Your task to perform on an android device: Open Youtube and go to the subscriptions tab Image 0: 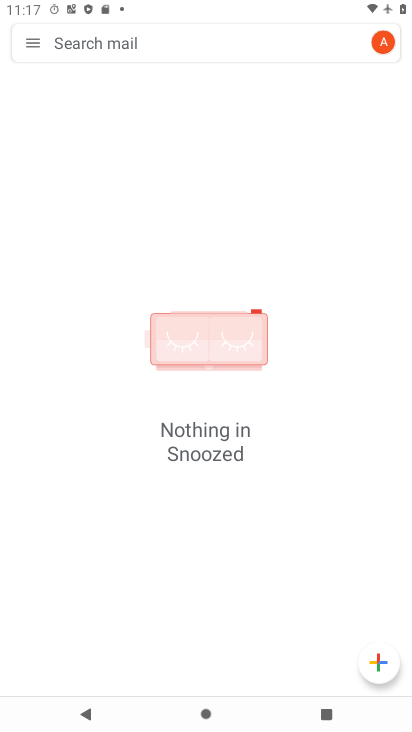
Step 0: press home button
Your task to perform on an android device: Open Youtube and go to the subscriptions tab Image 1: 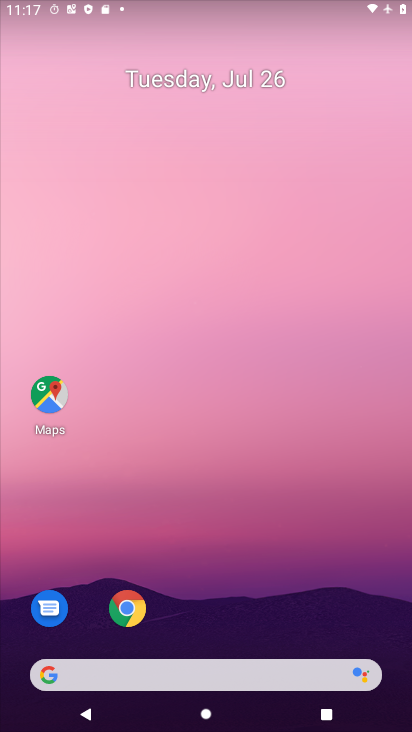
Step 1: drag from (195, 610) to (195, 80)
Your task to perform on an android device: Open Youtube and go to the subscriptions tab Image 2: 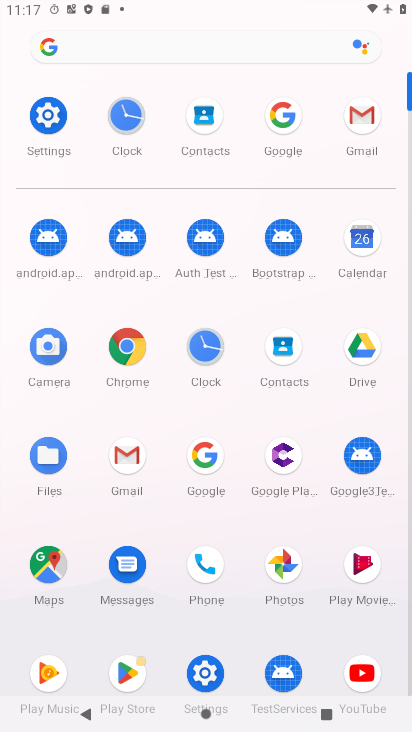
Step 2: click (374, 661)
Your task to perform on an android device: Open Youtube and go to the subscriptions tab Image 3: 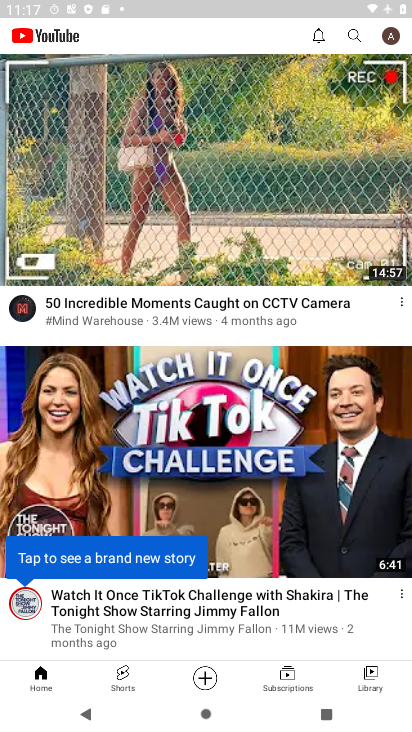
Step 3: click (290, 665)
Your task to perform on an android device: Open Youtube and go to the subscriptions tab Image 4: 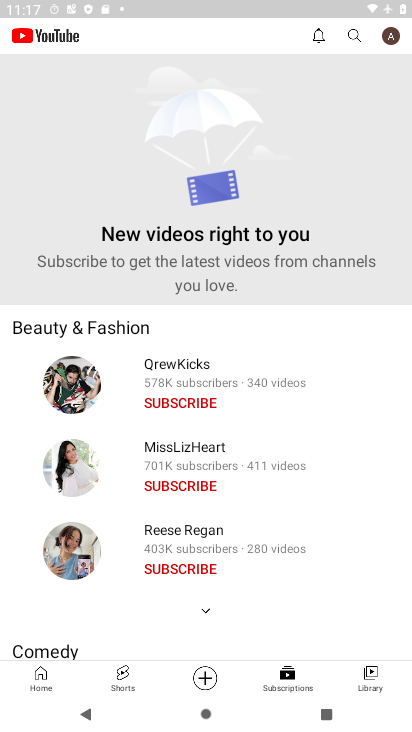
Step 4: task complete